Your task to perform on an android device: allow cookies in the chrome app Image 0: 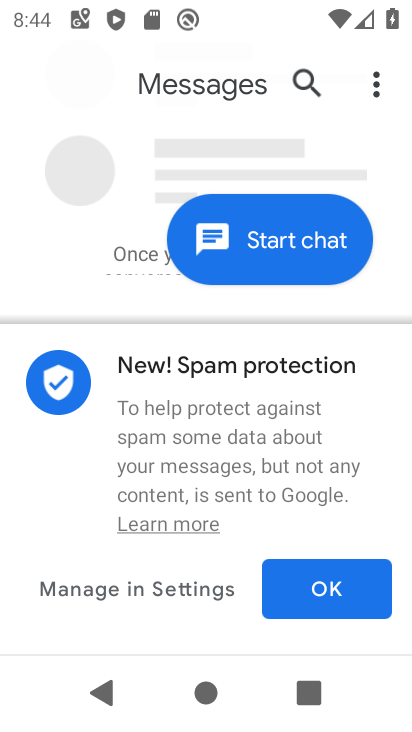
Step 0: press home button
Your task to perform on an android device: allow cookies in the chrome app Image 1: 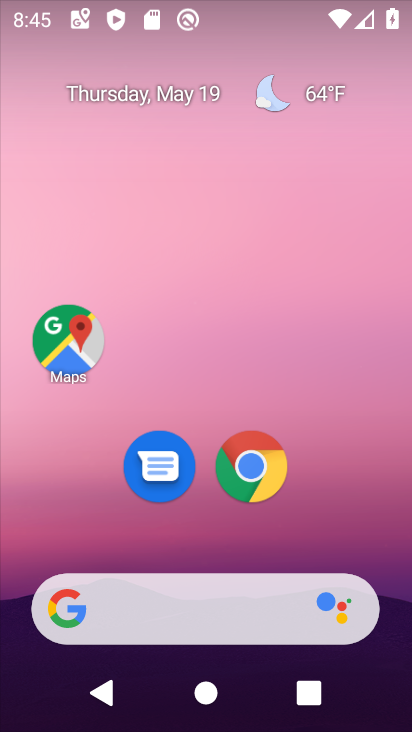
Step 1: drag from (393, 638) to (243, 91)
Your task to perform on an android device: allow cookies in the chrome app Image 2: 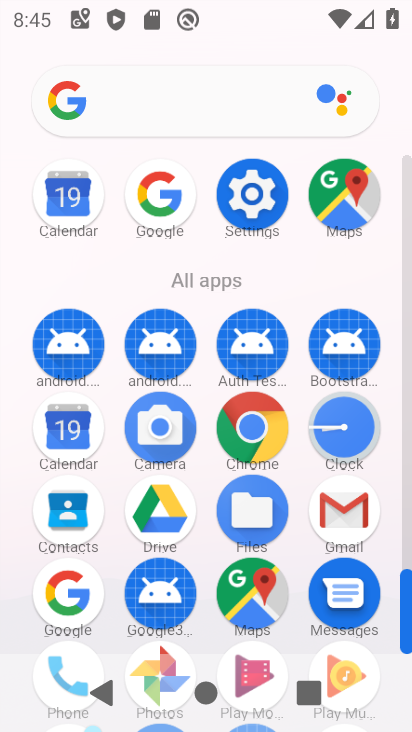
Step 2: click (237, 435)
Your task to perform on an android device: allow cookies in the chrome app Image 3: 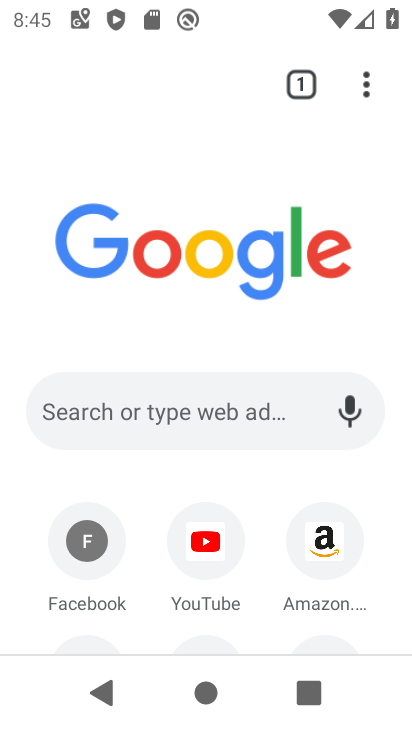
Step 3: click (366, 78)
Your task to perform on an android device: allow cookies in the chrome app Image 4: 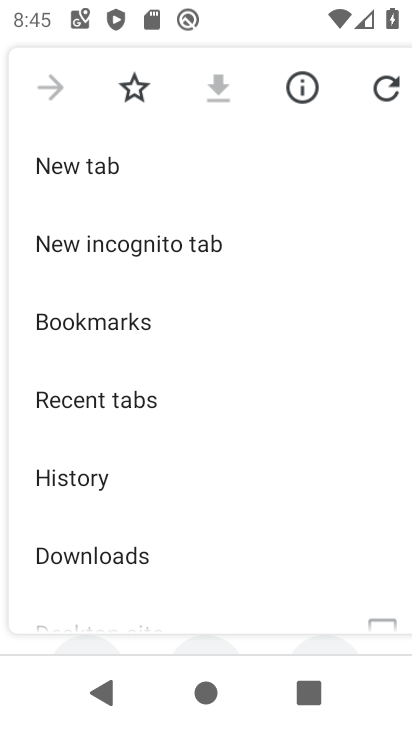
Step 4: click (86, 484)
Your task to perform on an android device: allow cookies in the chrome app Image 5: 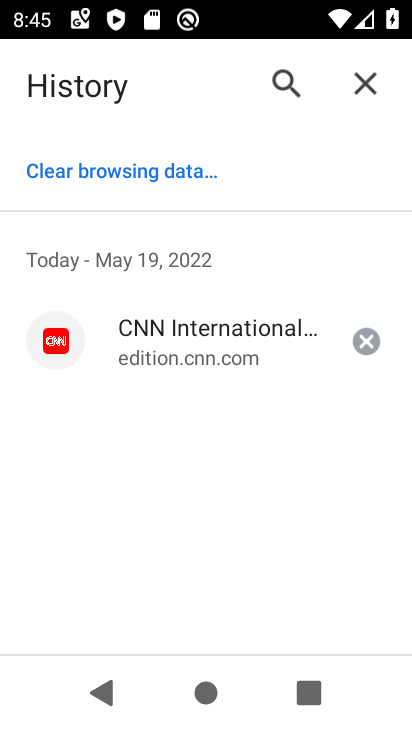
Step 5: click (121, 182)
Your task to perform on an android device: allow cookies in the chrome app Image 6: 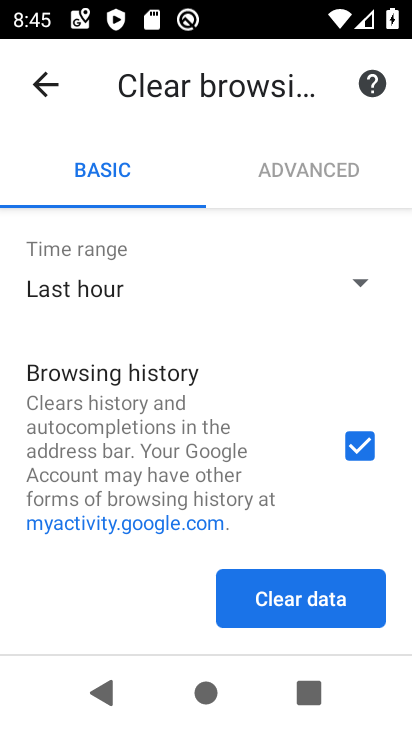
Step 6: task complete